Your task to perform on an android device: open app "AliExpress" (install if not already installed), go to login, and select forgot password Image 0: 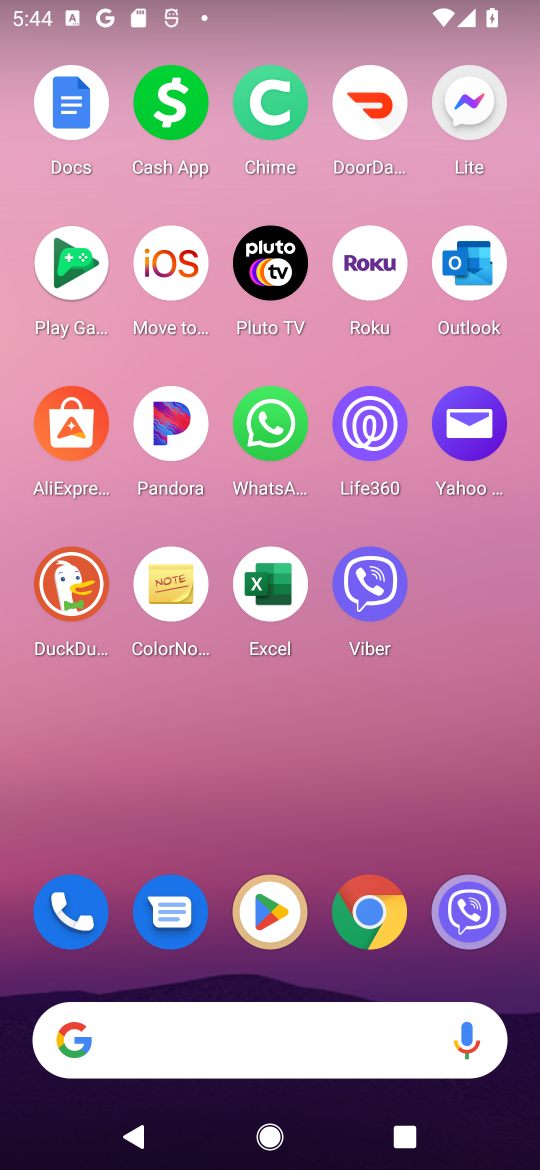
Step 0: click (270, 915)
Your task to perform on an android device: open app "AliExpress" (install if not already installed), go to login, and select forgot password Image 1: 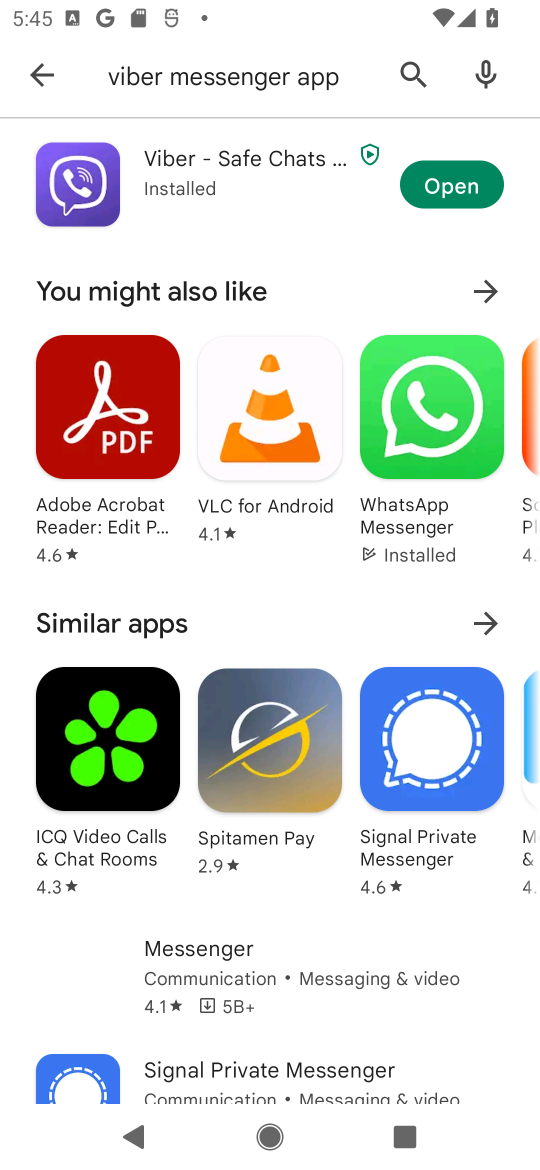
Step 1: click (53, 76)
Your task to perform on an android device: open app "AliExpress" (install if not already installed), go to login, and select forgot password Image 2: 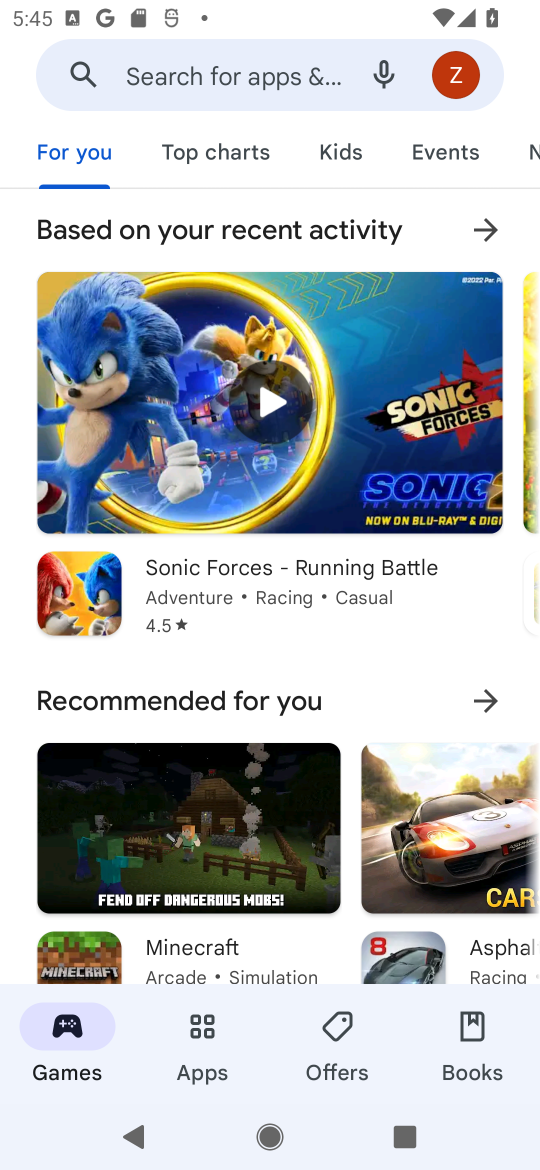
Step 2: click (287, 70)
Your task to perform on an android device: open app "AliExpress" (install if not already installed), go to login, and select forgot password Image 3: 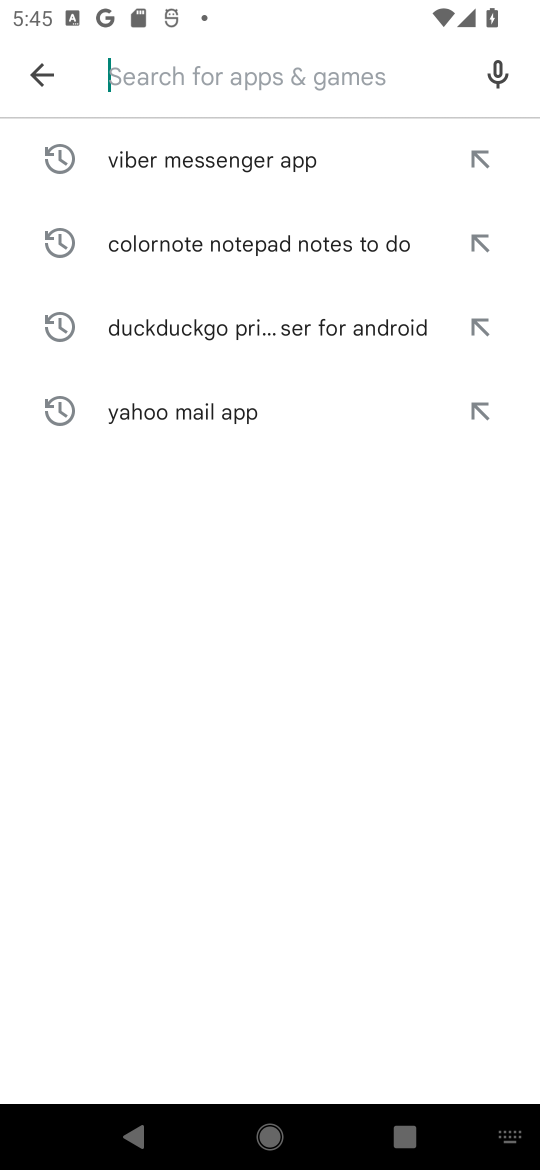
Step 3: type "AliExpress "
Your task to perform on an android device: open app "AliExpress" (install if not already installed), go to login, and select forgot password Image 4: 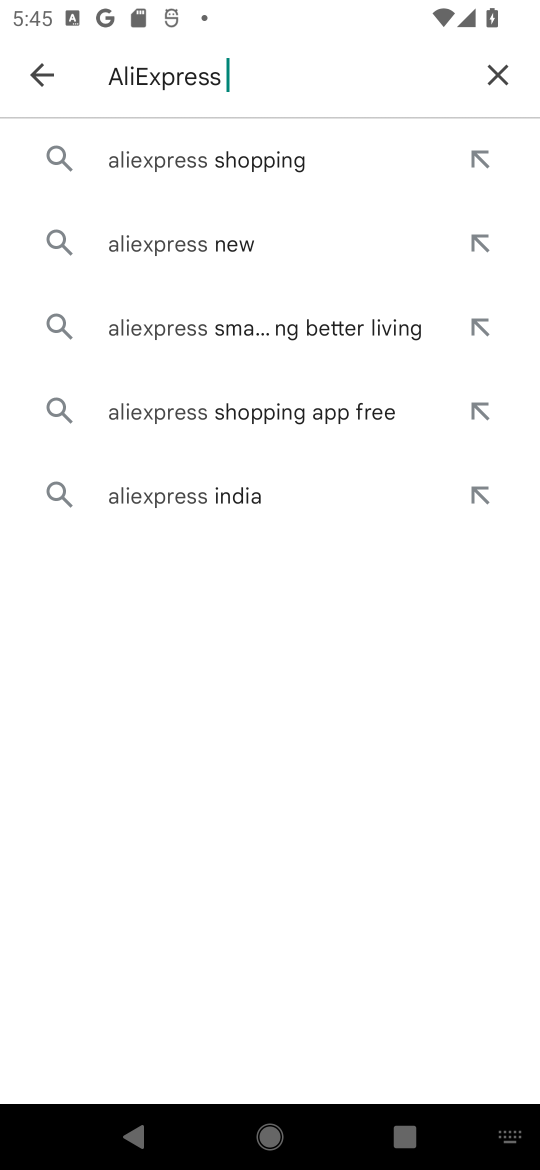
Step 4: click (181, 171)
Your task to perform on an android device: open app "AliExpress" (install if not already installed), go to login, and select forgot password Image 5: 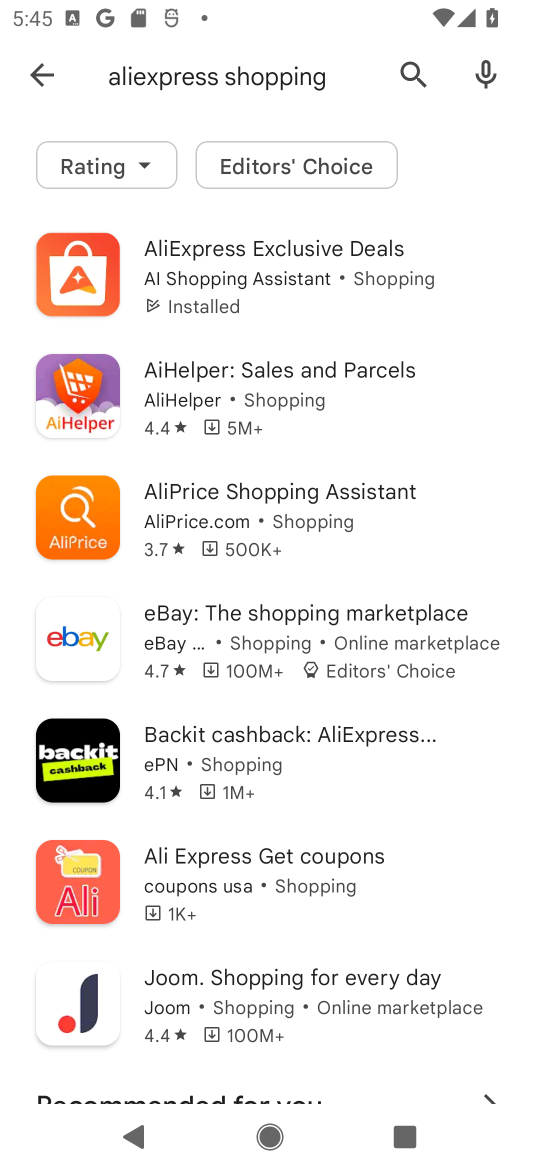
Step 5: click (232, 278)
Your task to perform on an android device: open app "AliExpress" (install if not already installed), go to login, and select forgot password Image 6: 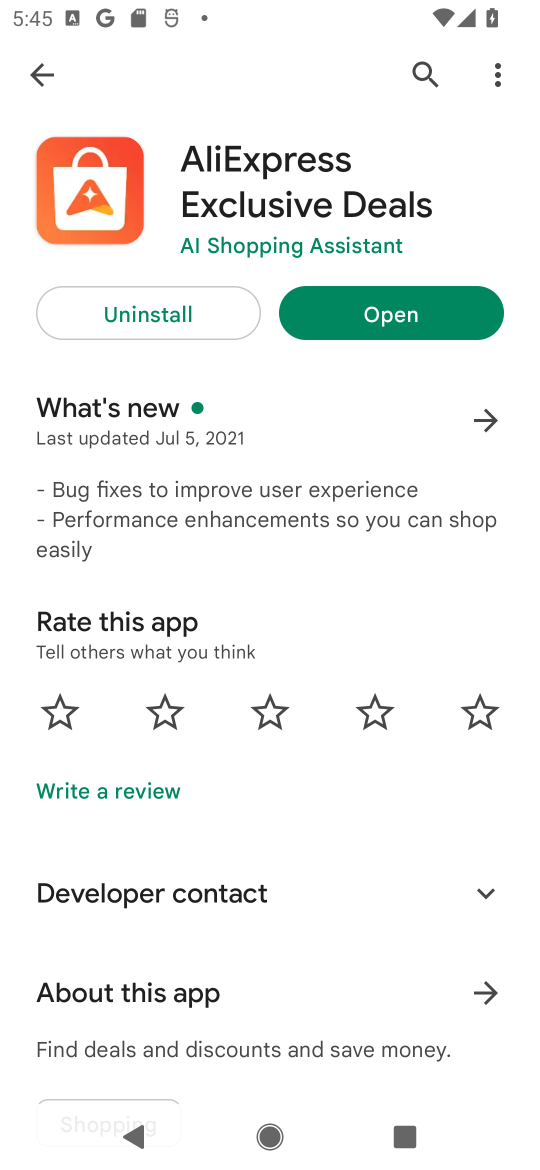
Step 6: click (335, 297)
Your task to perform on an android device: open app "AliExpress" (install if not already installed), go to login, and select forgot password Image 7: 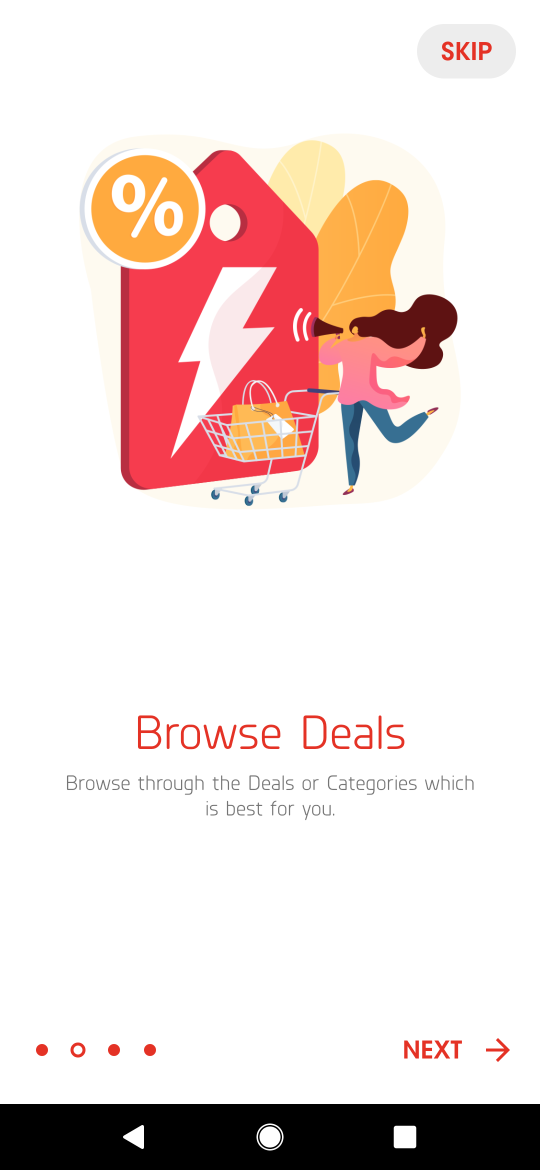
Step 7: task complete